Your task to perform on an android device: check the backup settings in the google photos Image 0: 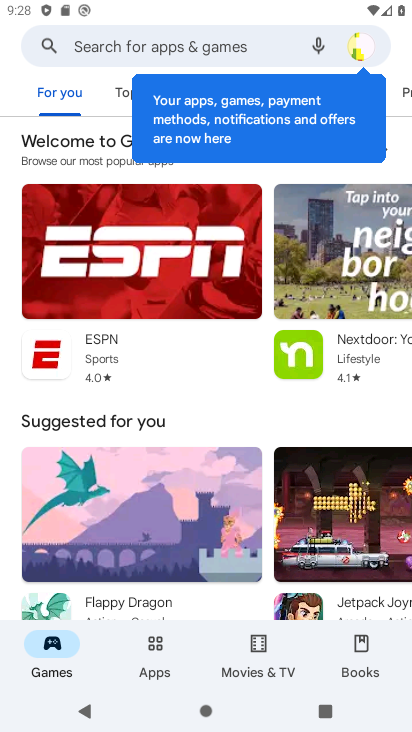
Step 0: press home button
Your task to perform on an android device: check the backup settings in the google photos Image 1: 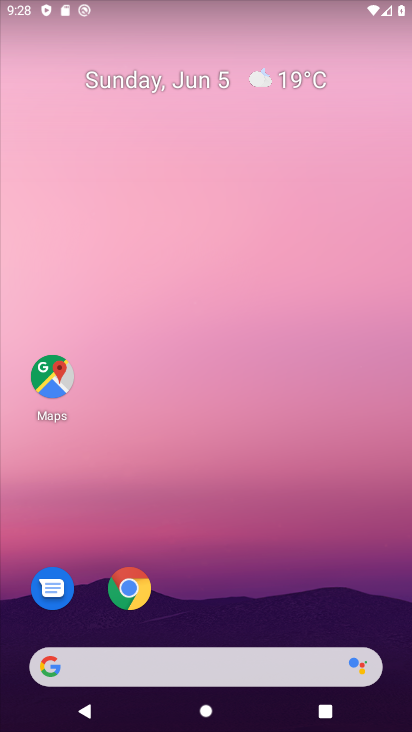
Step 1: drag from (337, 556) to (319, 200)
Your task to perform on an android device: check the backup settings in the google photos Image 2: 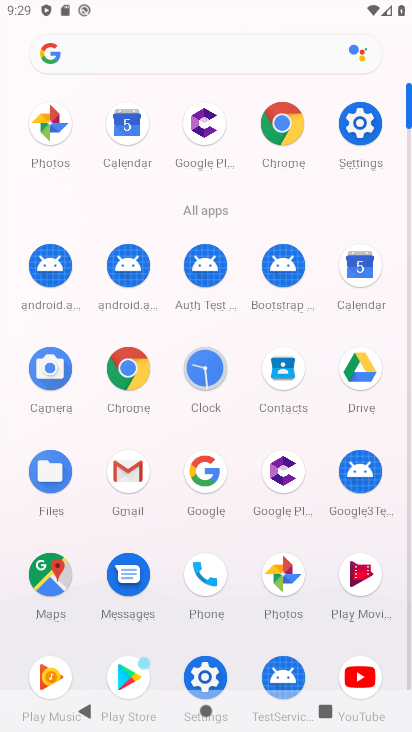
Step 2: click (293, 573)
Your task to perform on an android device: check the backup settings in the google photos Image 3: 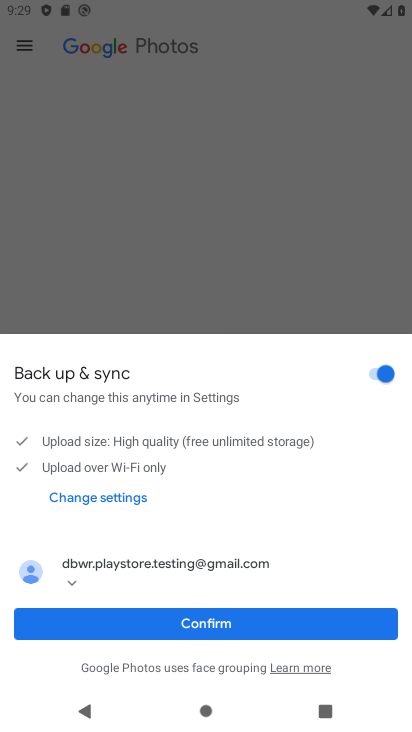
Step 3: click (266, 621)
Your task to perform on an android device: check the backup settings in the google photos Image 4: 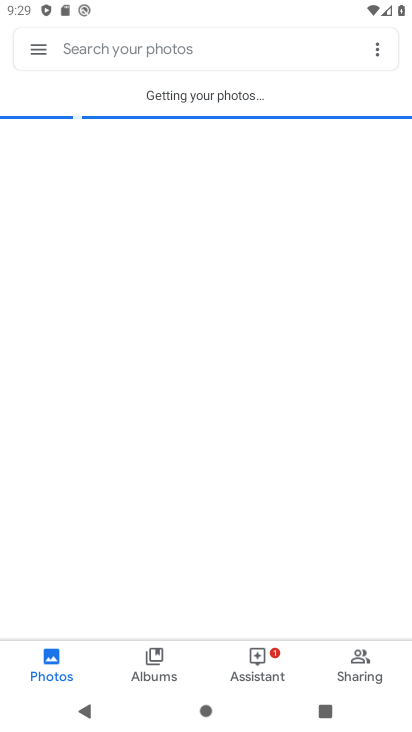
Step 4: click (32, 49)
Your task to perform on an android device: check the backup settings in the google photos Image 5: 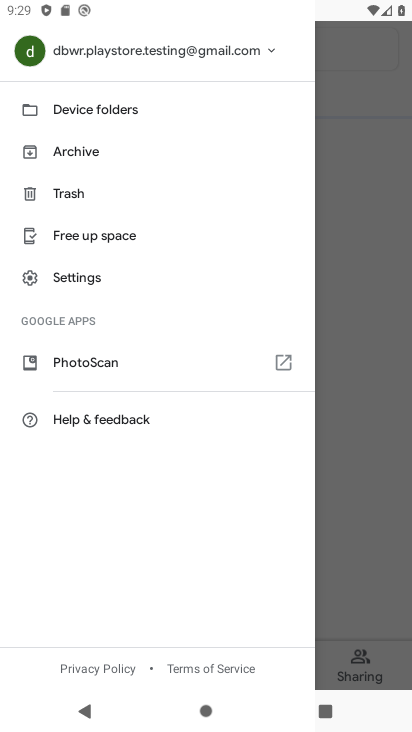
Step 5: click (90, 272)
Your task to perform on an android device: check the backup settings in the google photos Image 6: 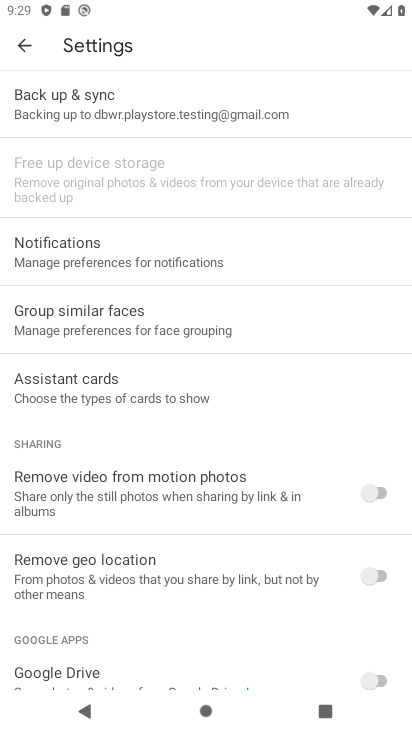
Step 6: click (198, 109)
Your task to perform on an android device: check the backup settings in the google photos Image 7: 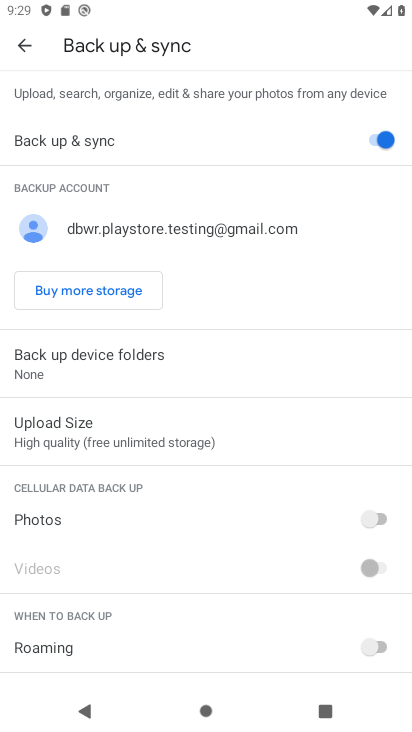
Step 7: task complete